Your task to perform on an android device: Go to location settings Image 0: 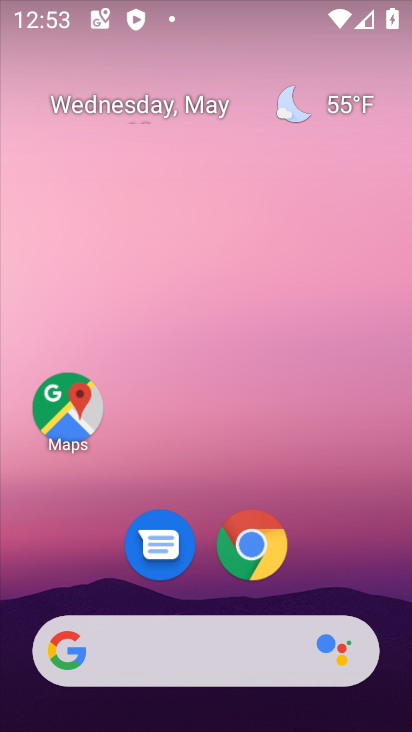
Step 0: drag from (353, 575) to (337, 12)
Your task to perform on an android device: Go to location settings Image 1: 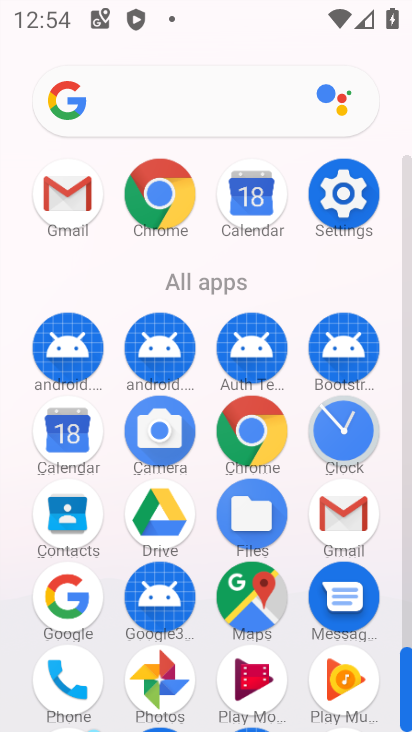
Step 1: click (339, 173)
Your task to perform on an android device: Go to location settings Image 2: 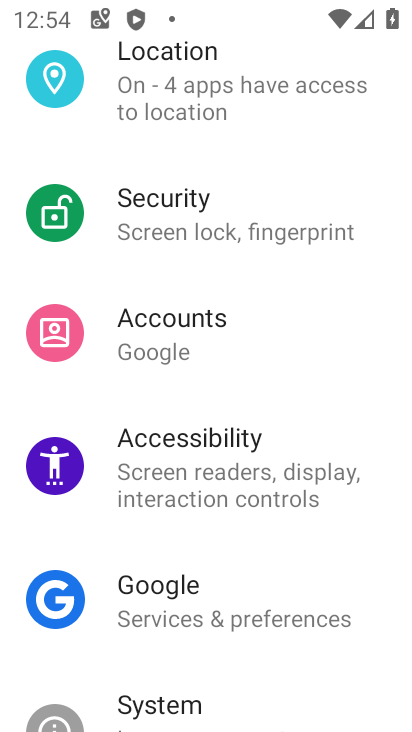
Step 2: click (167, 102)
Your task to perform on an android device: Go to location settings Image 3: 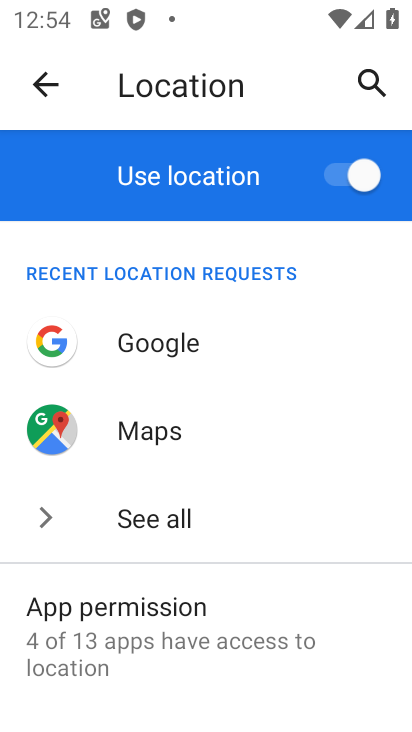
Step 3: task complete